Your task to perform on an android device: What's the weather going to be tomorrow? Image 0: 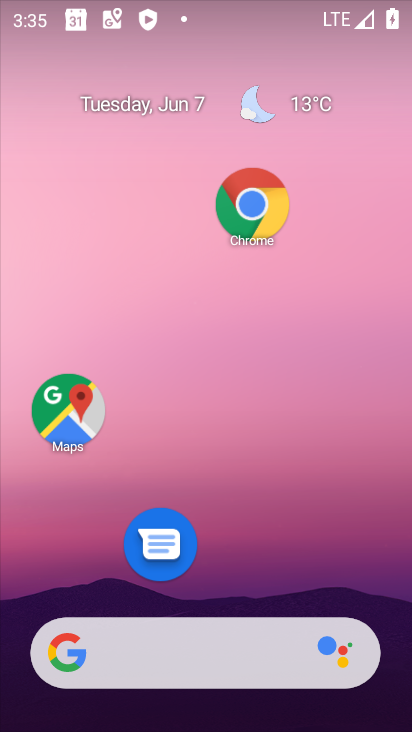
Step 0: click (307, 101)
Your task to perform on an android device: What's the weather going to be tomorrow? Image 1: 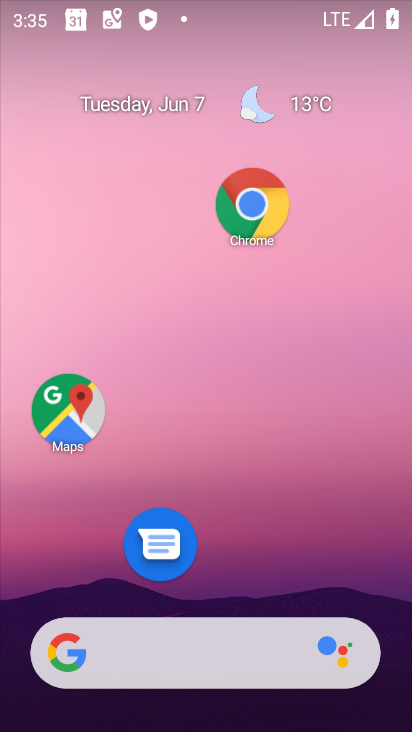
Step 1: click (306, 99)
Your task to perform on an android device: What's the weather going to be tomorrow? Image 2: 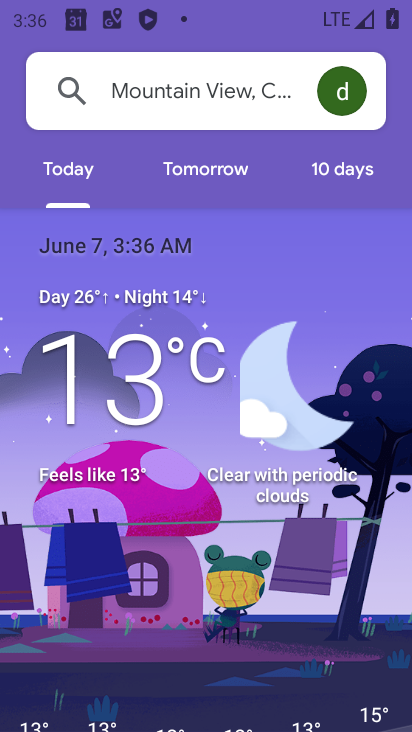
Step 2: click (201, 178)
Your task to perform on an android device: What's the weather going to be tomorrow? Image 3: 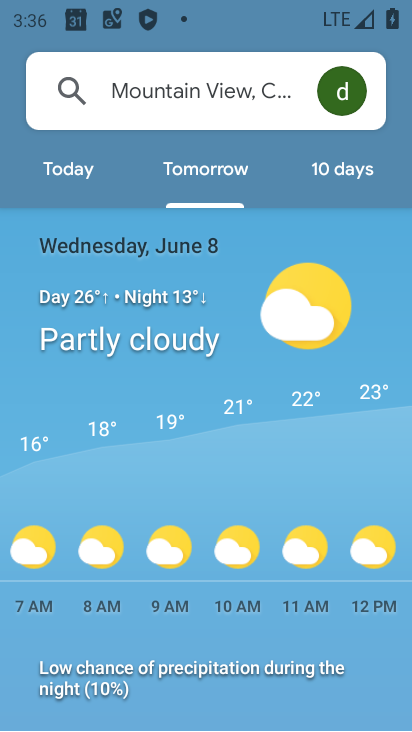
Step 3: drag from (288, 545) to (249, 543)
Your task to perform on an android device: What's the weather going to be tomorrow? Image 4: 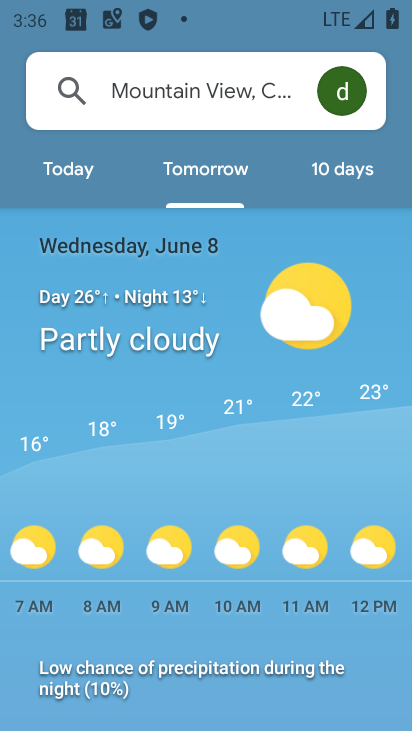
Step 4: drag from (113, 543) to (17, 543)
Your task to perform on an android device: What's the weather going to be tomorrow? Image 5: 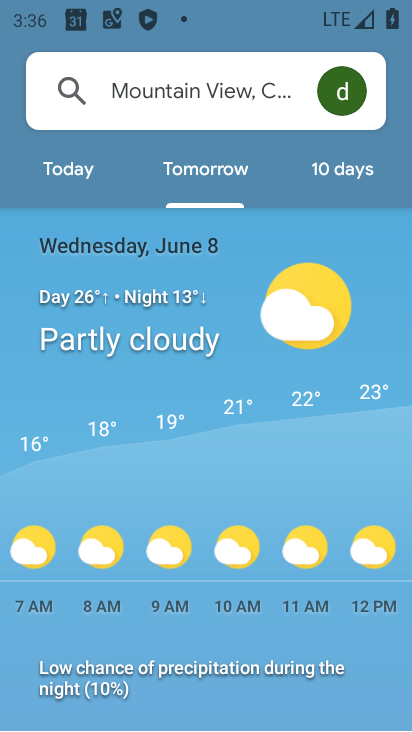
Step 5: click (365, 548)
Your task to perform on an android device: What's the weather going to be tomorrow? Image 6: 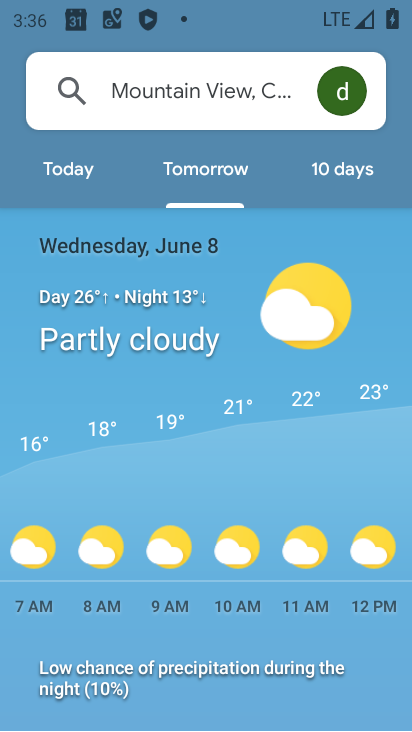
Step 6: task complete